Your task to perform on an android device: open sync settings in chrome Image 0: 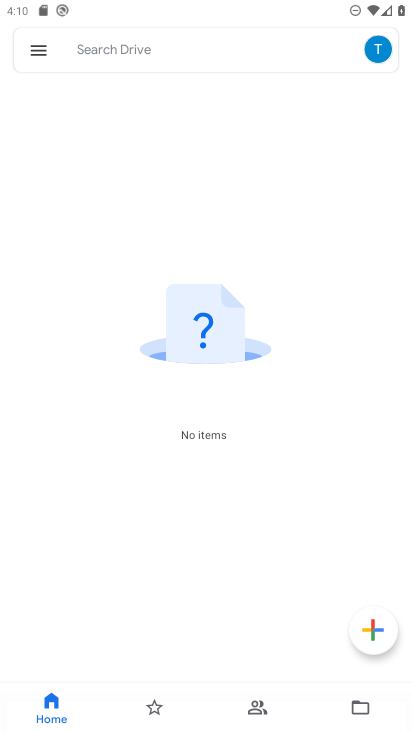
Step 0: press home button
Your task to perform on an android device: open sync settings in chrome Image 1: 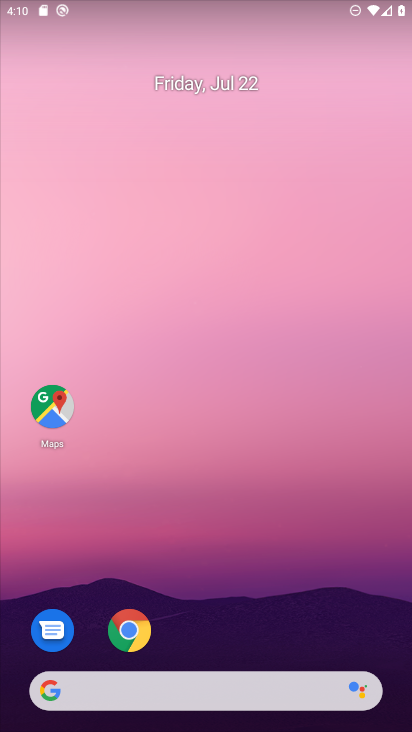
Step 1: click (138, 618)
Your task to perform on an android device: open sync settings in chrome Image 2: 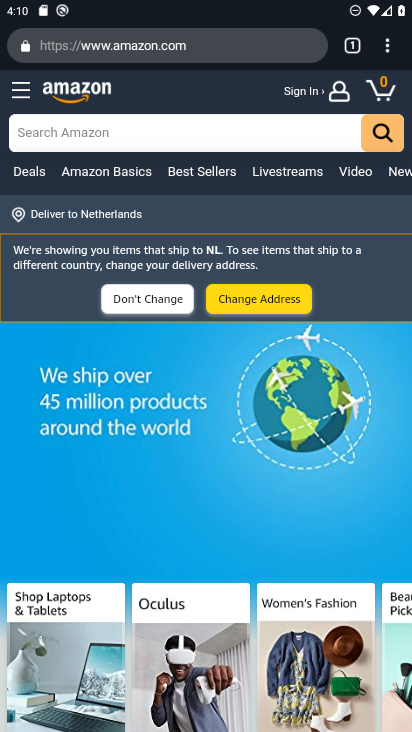
Step 2: click (387, 48)
Your task to perform on an android device: open sync settings in chrome Image 3: 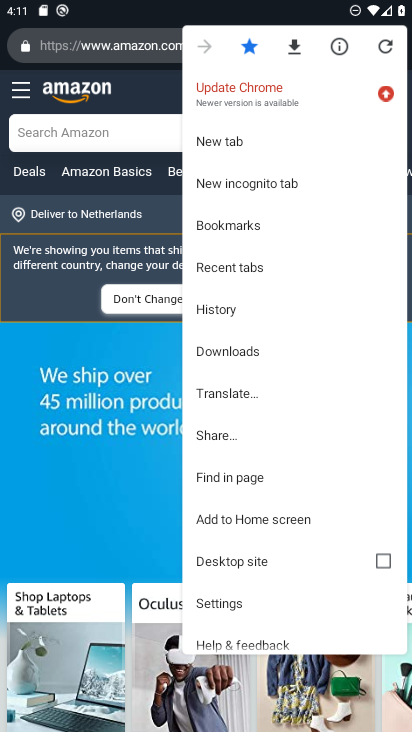
Step 3: click (227, 595)
Your task to perform on an android device: open sync settings in chrome Image 4: 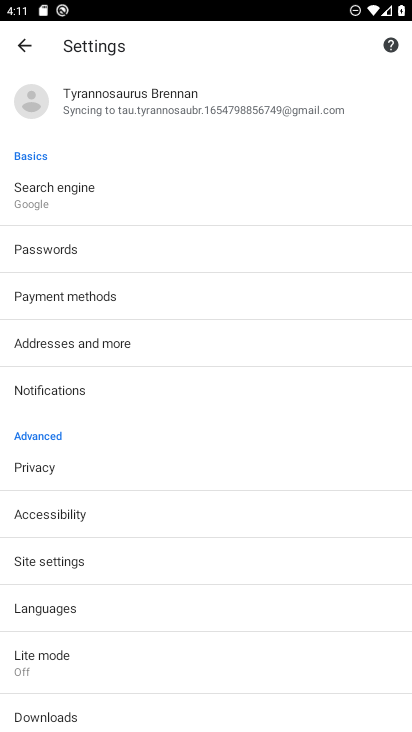
Step 4: click (148, 104)
Your task to perform on an android device: open sync settings in chrome Image 5: 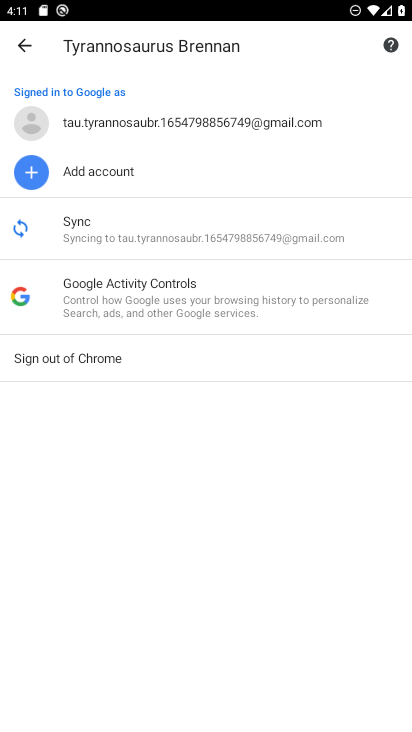
Step 5: click (127, 227)
Your task to perform on an android device: open sync settings in chrome Image 6: 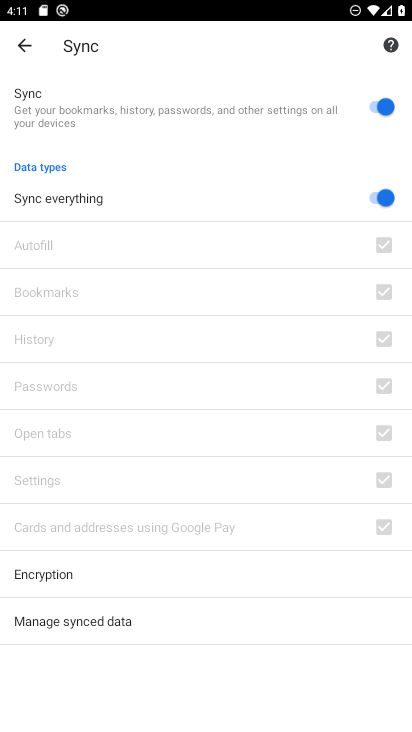
Step 6: task complete